Your task to perform on an android device: delete the emails in spam in the gmail app Image 0: 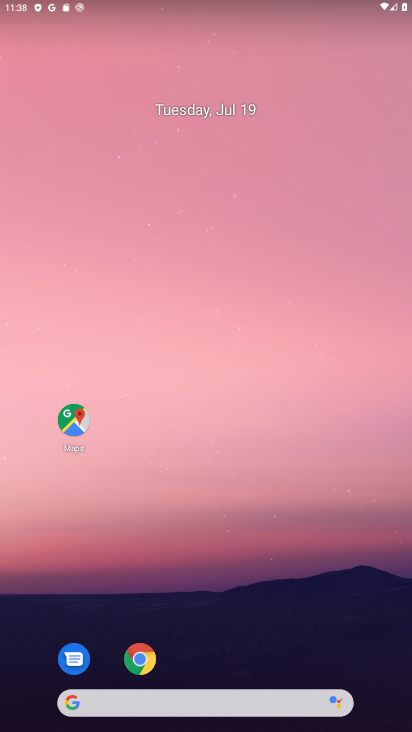
Step 0: drag from (272, 584) to (193, 78)
Your task to perform on an android device: delete the emails in spam in the gmail app Image 1: 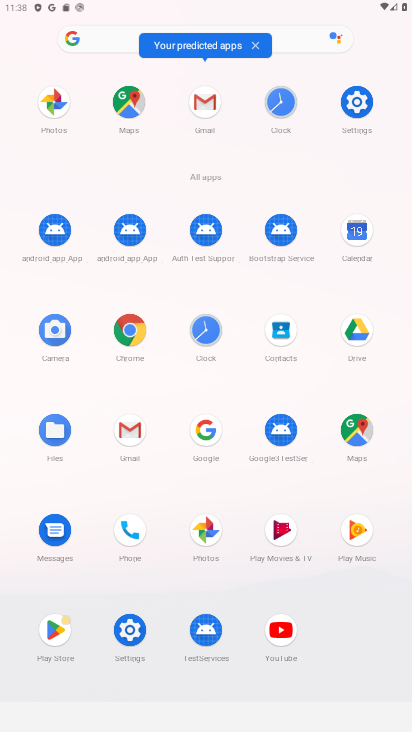
Step 1: click (202, 97)
Your task to perform on an android device: delete the emails in spam in the gmail app Image 2: 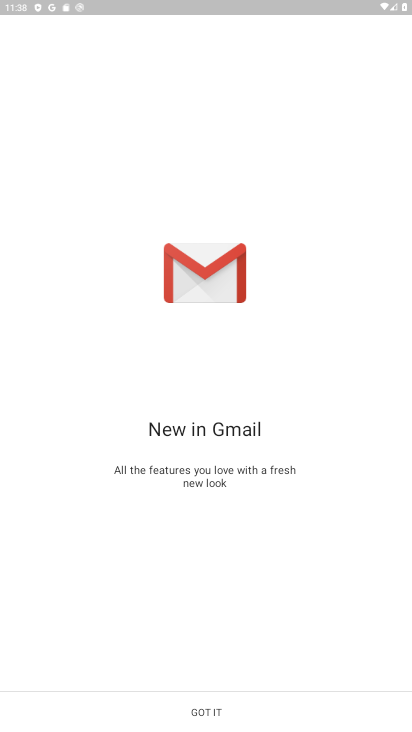
Step 2: click (292, 696)
Your task to perform on an android device: delete the emails in spam in the gmail app Image 3: 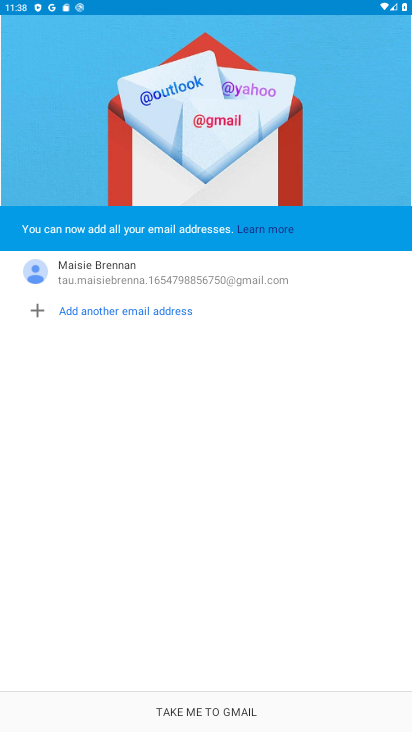
Step 3: click (215, 708)
Your task to perform on an android device: delete the emails in spam in the gmail app Image 4: 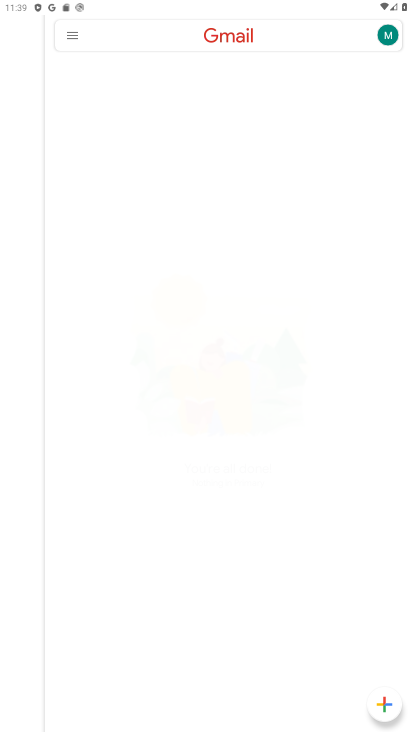
Step 4: click (77, 40)
Your task to perform on an android device: delete the emails in spam in the gmail app Image 5: 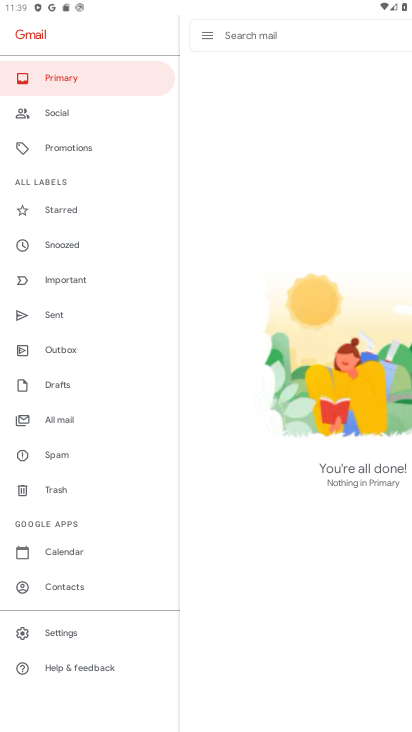
Step 5: click (55, 442)
Your task to perform on an android device: delete the emails in spam in the gmail app Image 6: 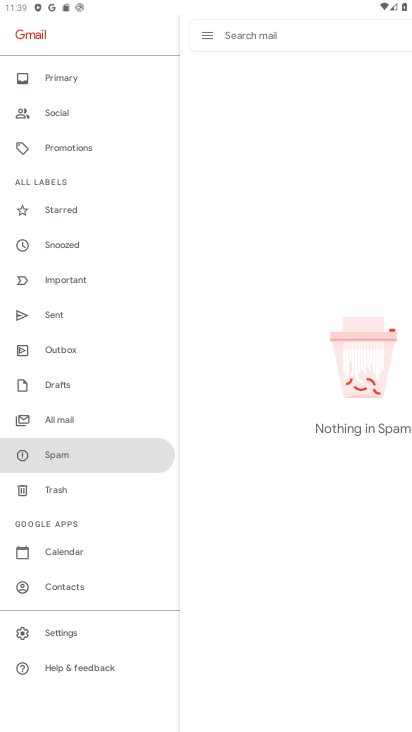
Step 6: task complete